Your task to perform on an android device: What's on my calendar tomorrow? Image 0: 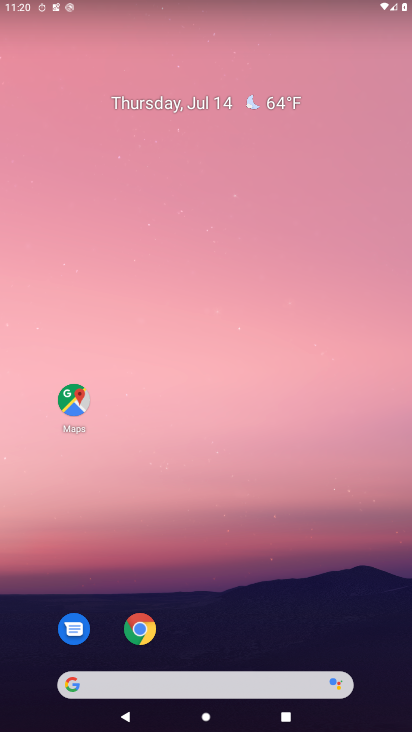
Step 0: drag from (168, 685) to (177, 431)
Your task to perform on an android device: What's on my calendar tomorrow? Image 1: 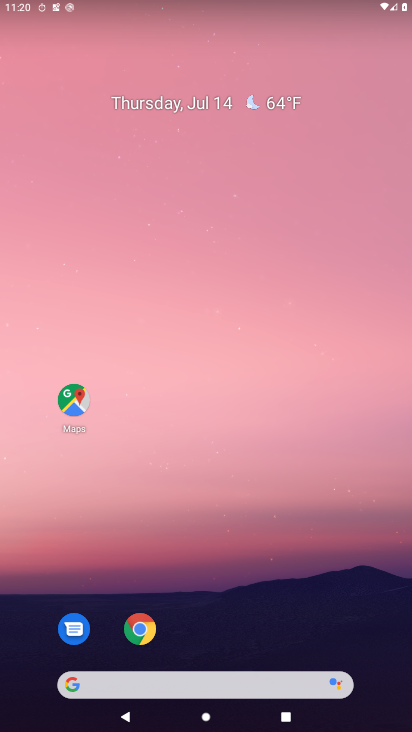
Step 1: drag from (273, 667) to (277, 332)
Your task to perform on an android device: What's on my calendar tomorrow? Image 2: 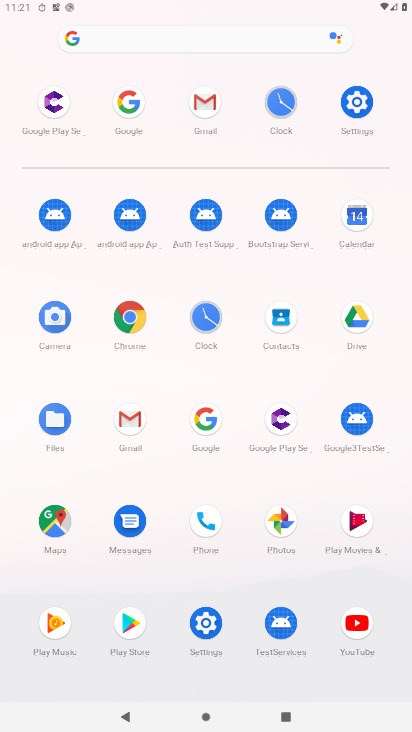
Step 2: click (356, 227)
Your task to perform on an android device: What's on my calendar tomorrow? Image 3: 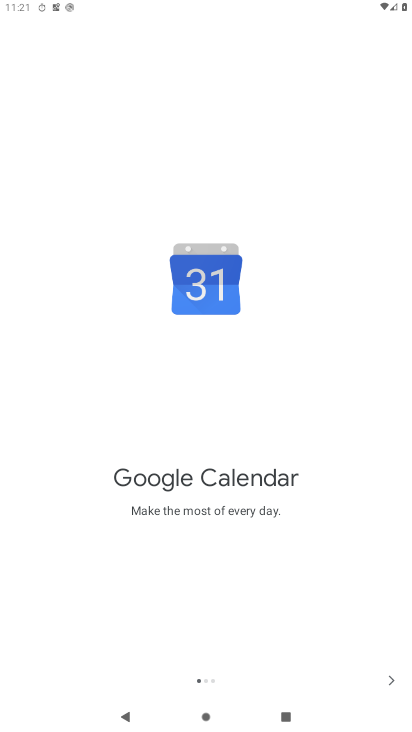
Step 3: click (387, 678)
Your task to perform on an android device: What's on my calendar tomorrow? Image 4: 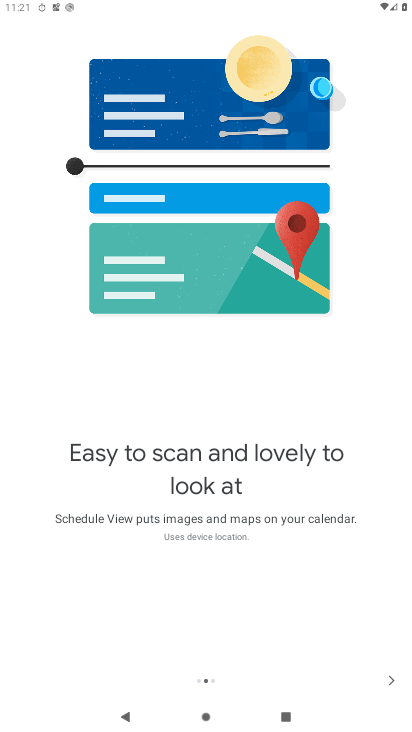
Step 4: click (388, 678)
Your task to perform on an android device: What's on my calendar tomorrow? Image 5: 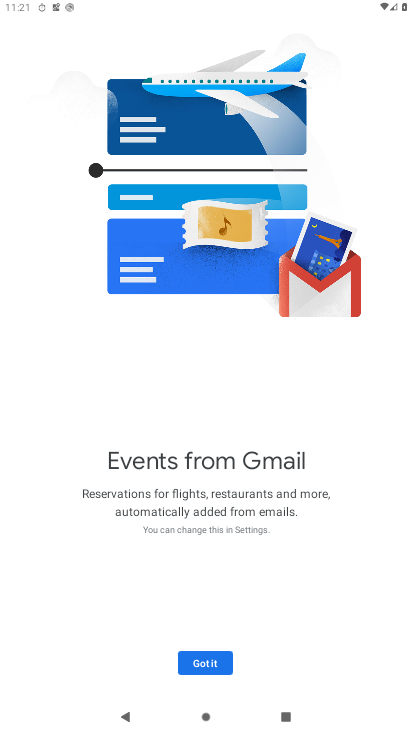
Step 5: click (202, 663)
Your task to perform on an android device: What's on my calendar tomorrow? Image 6: 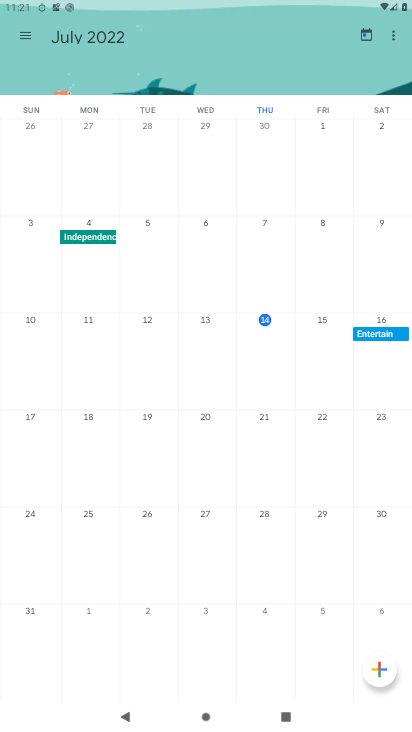
Step 6: click (325, 320)
Your task to perform on an android device: What's on my calendar tomorrow? Image 7: 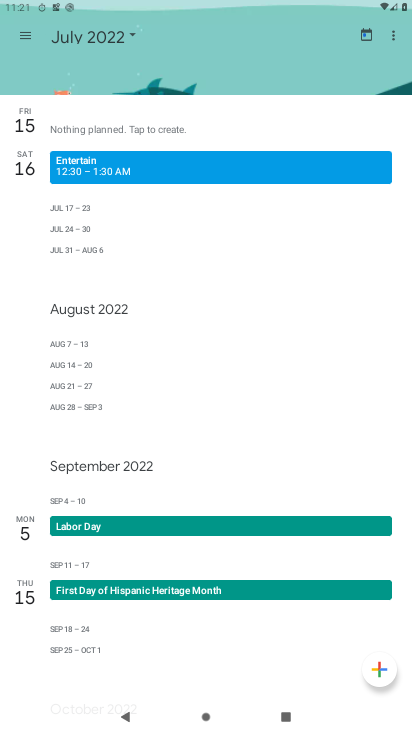
Step 7: task complete